Your task to perform on an android device: Open accessibility settings Image 0: 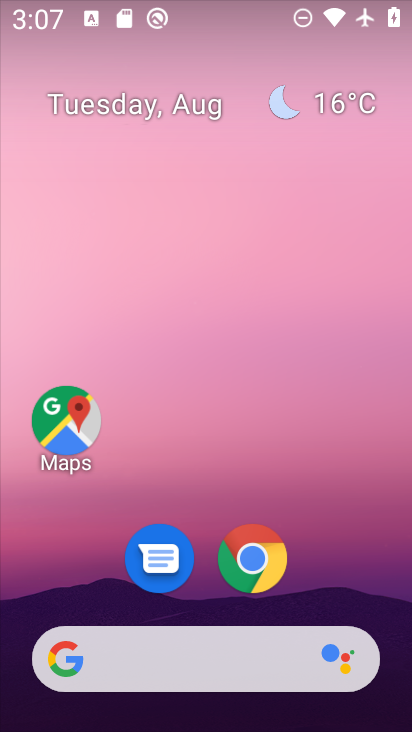
Step 0: drag from (216, 521) to (208, 46)
Your task to perform on an android device: Open accessibility settings Image 1: 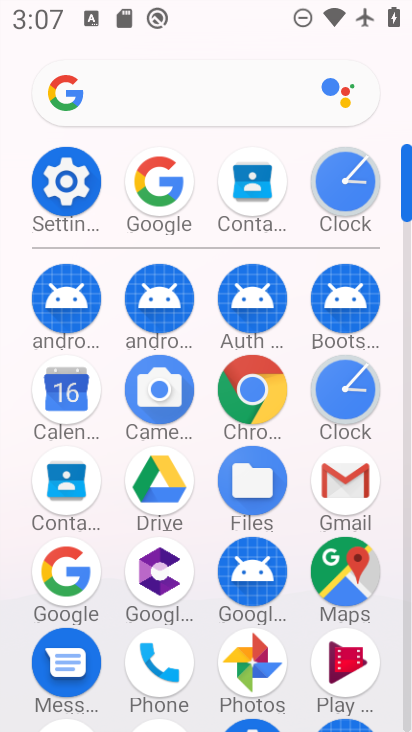
Step 1: click (83, 168)
Your task to perform on an android device: Open accessibility settings Image 2: 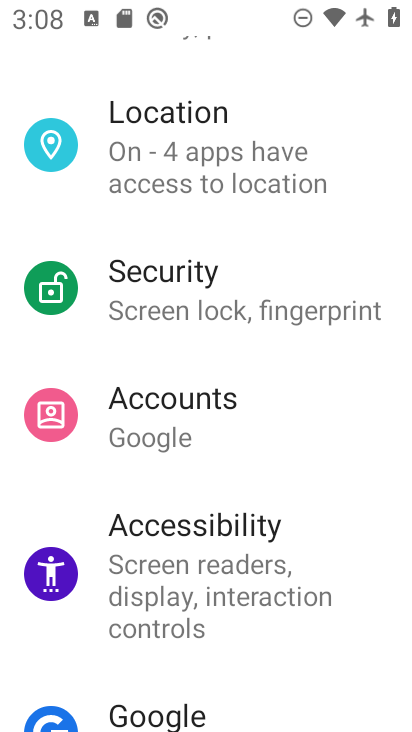
Step 2: click (282, 551)
Your task to perform on an android device: Open accessibility settings Image 3: 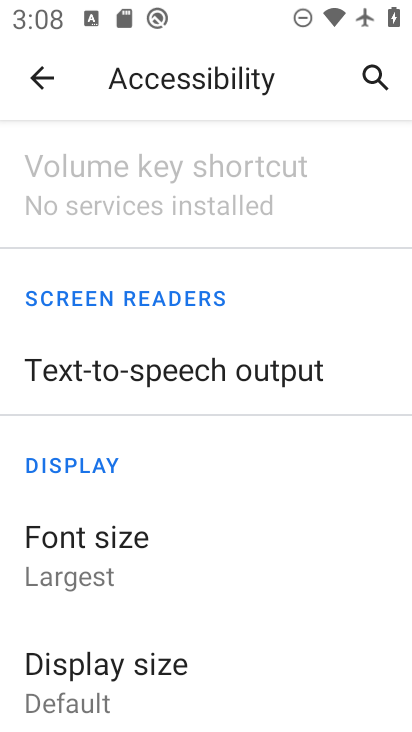
Step 3: task complete